Your task to perform on an android device: Clear all items from cart on amazon.com. Add "lg ultragear" to the cart on amazon.com Image 0: 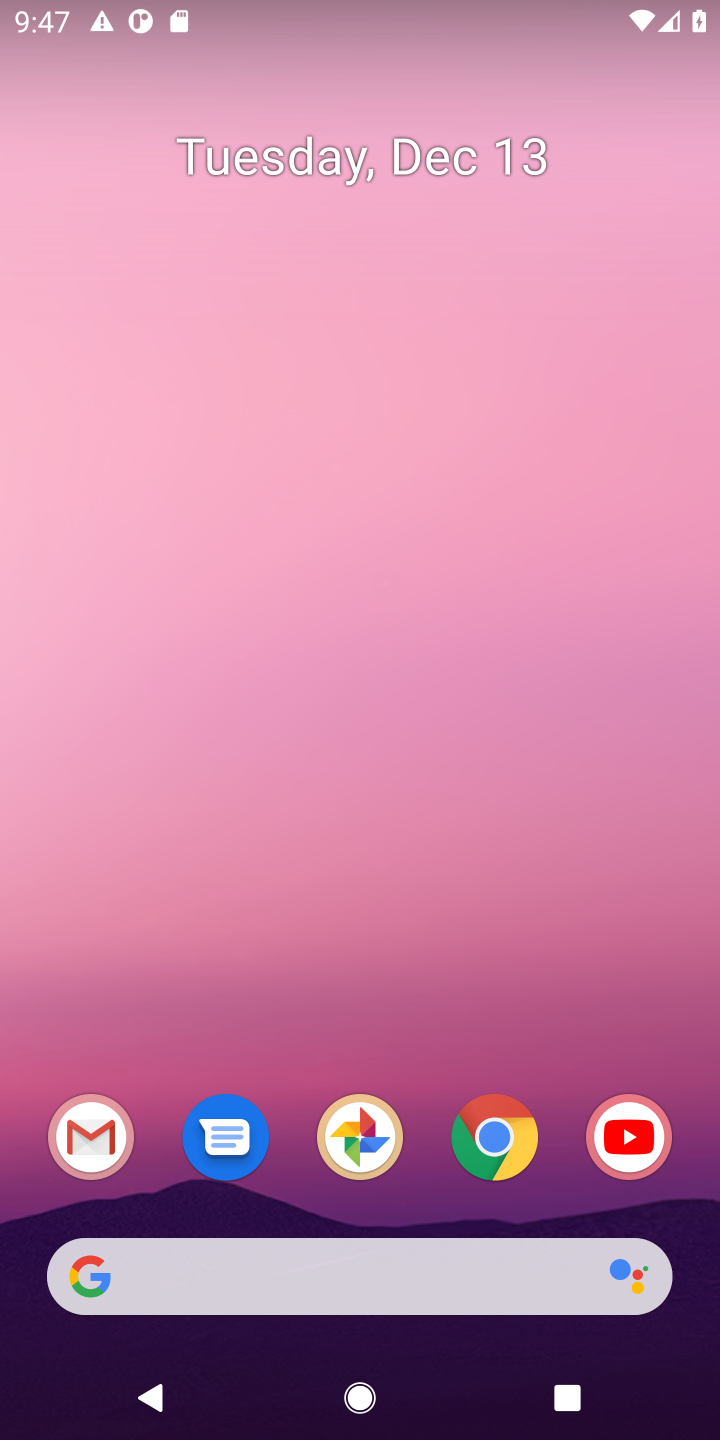
Step 0: click (476, 1156)
Your task to perform on an android device: Clear all items from cart on amazon.com. Add "lg ultragear" to the cart on amazon.com Image 1: 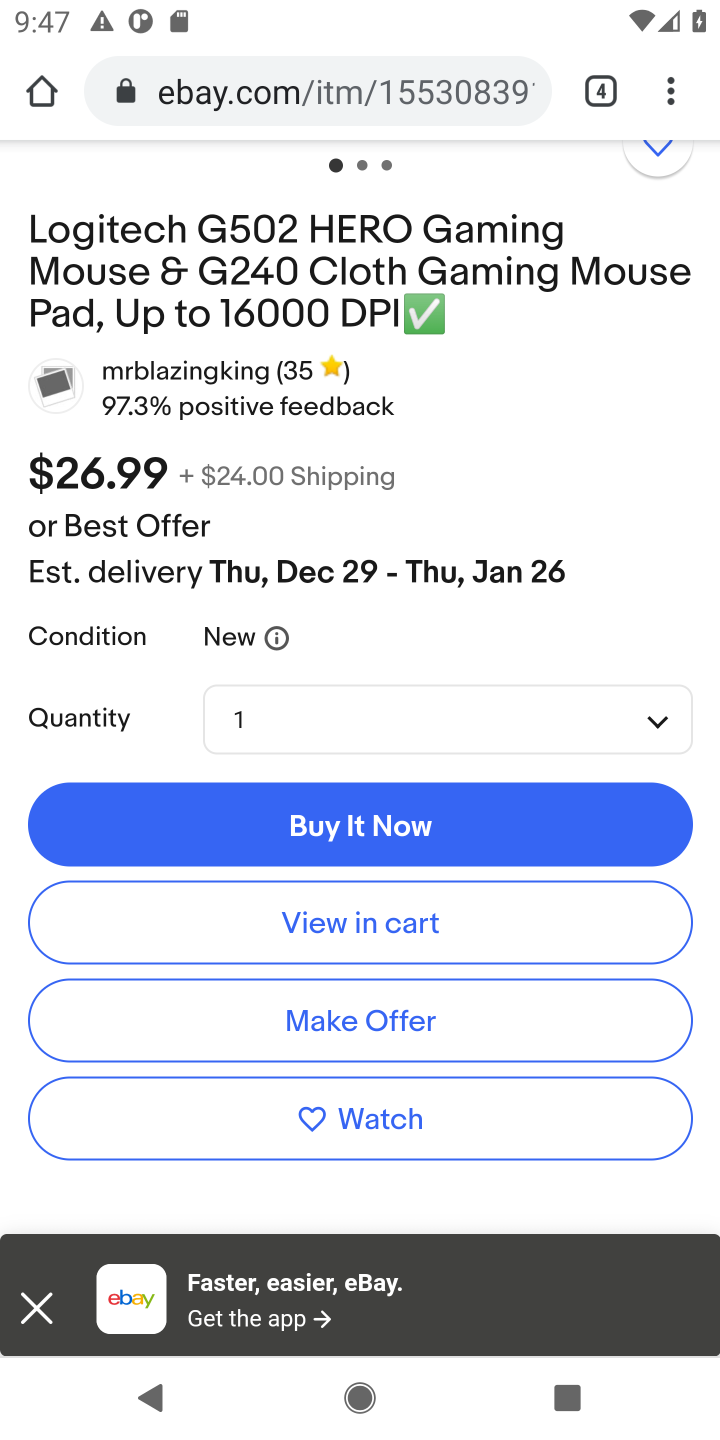
Step 1: click (611, 92)
Your task to perform on an android device: Clear all items from cart on amazon.com. Add "lg ultragear" to the cart on amazon.com Image 2: 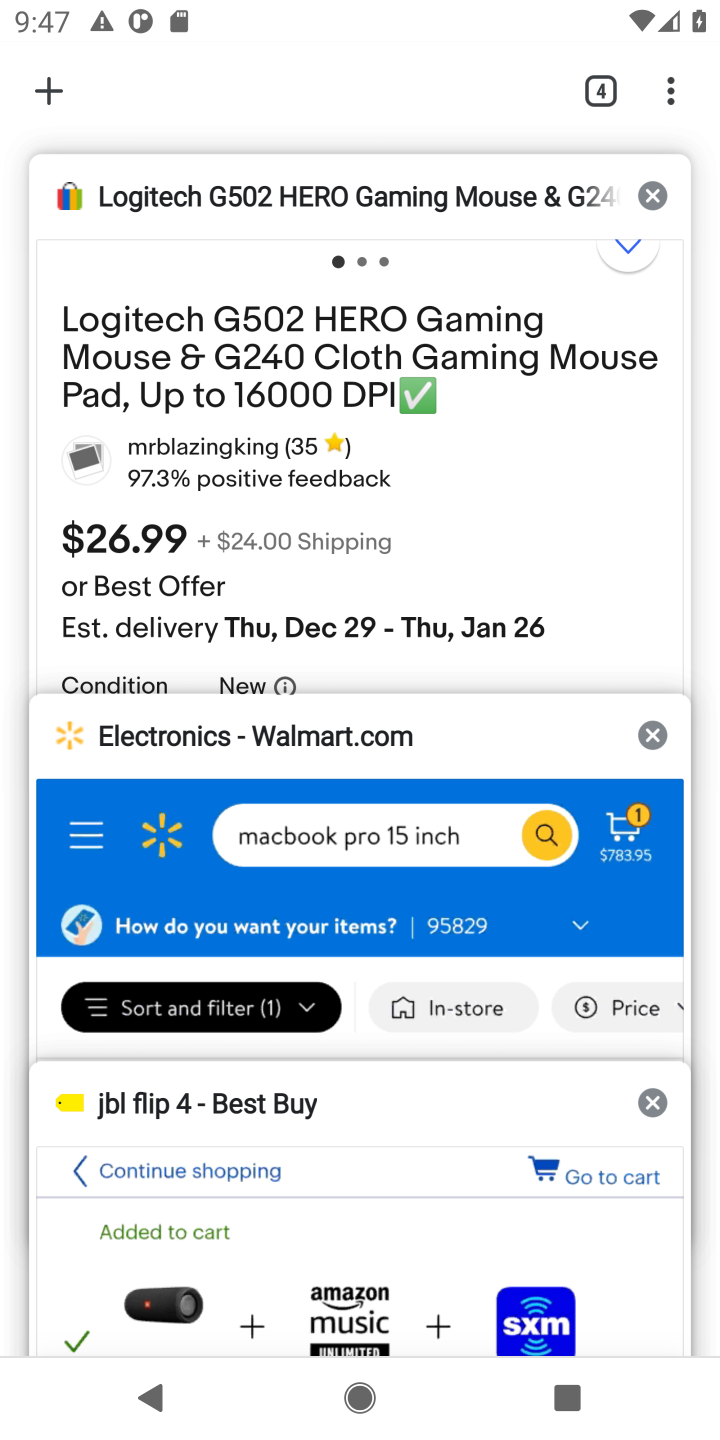
Step 2: click (40, 94)
Your task to perform on an android device: Clear all items from cart on amazon.com. Add "lg ultragear" to the cart on amazon.com Image 3: 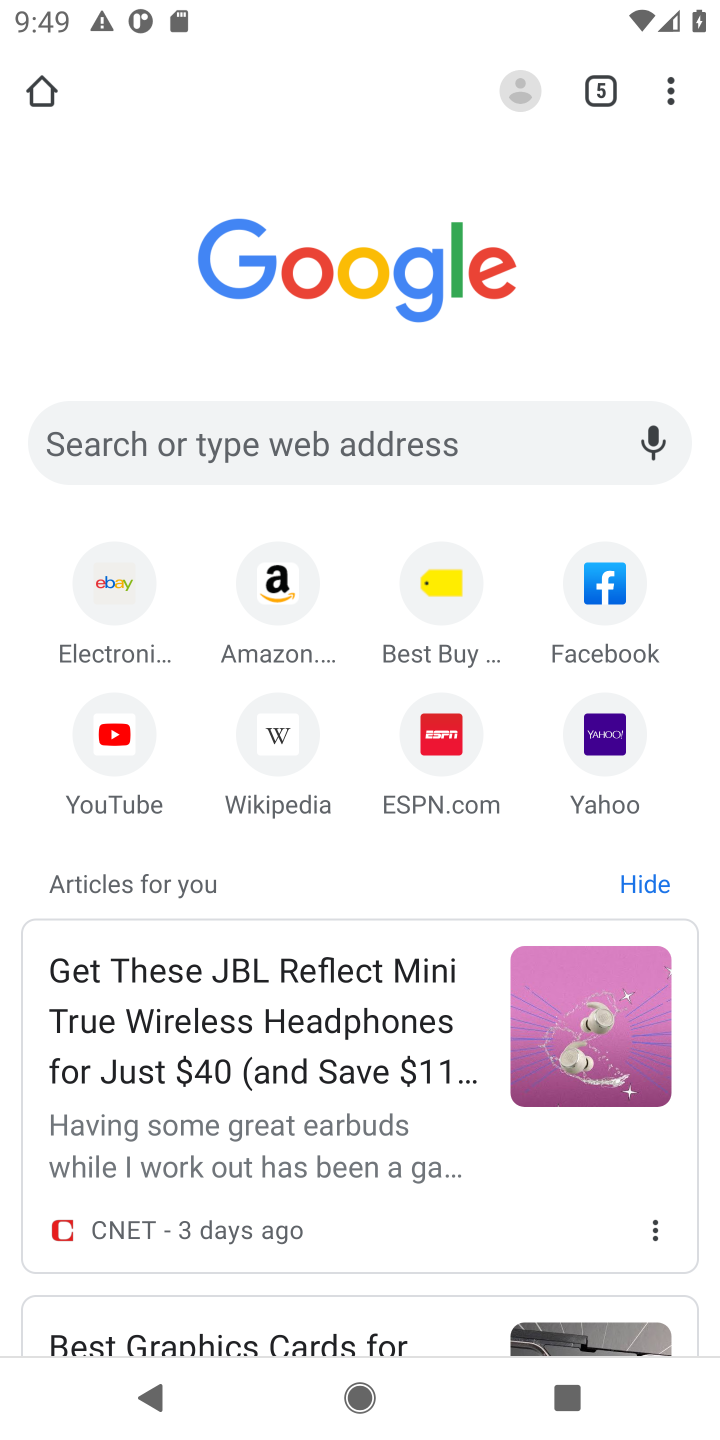
Step 3: click (607, 89)
Your task to perform on an android device: Clear all items from cart on amazon.com. Add "lg ultragear" to the cart on amazon.com Image 4: 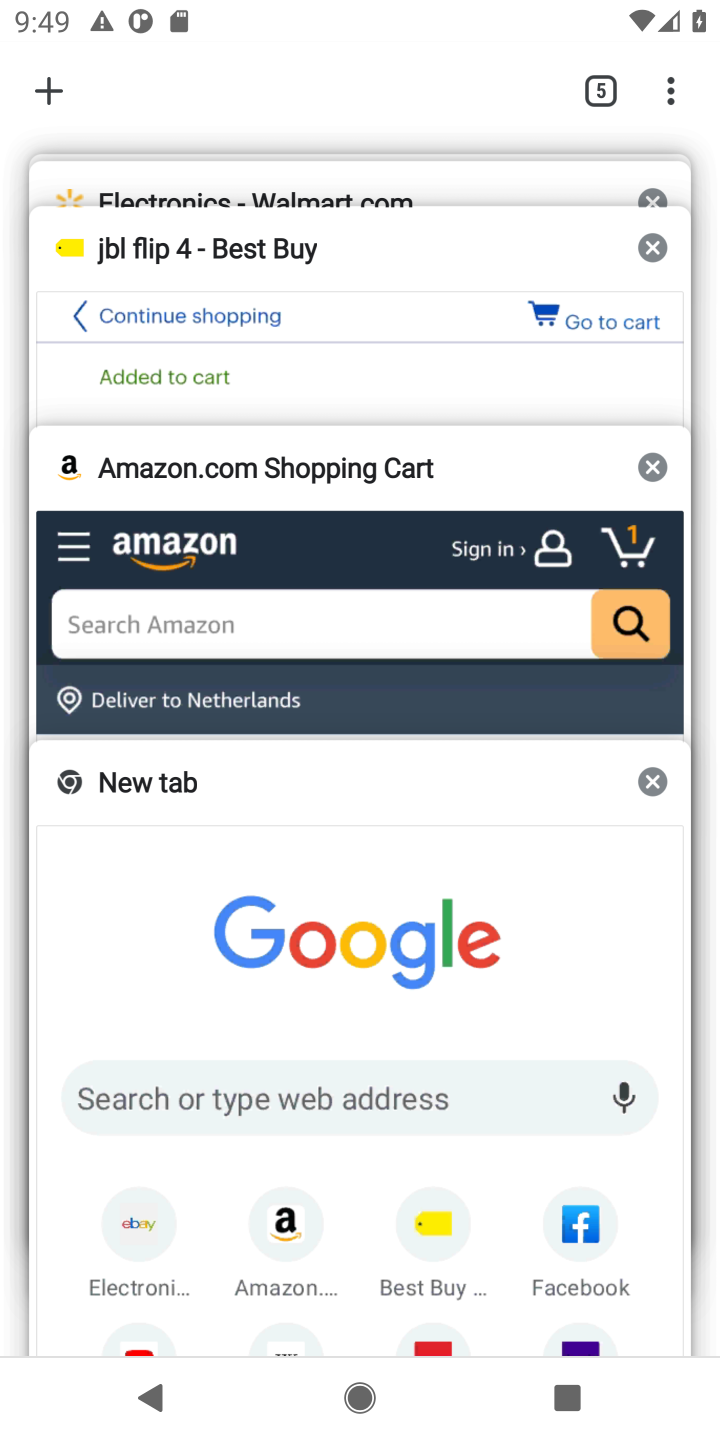
Step 4: click (306, 591)
Your task to perform on an android device: Clear all items from cart on amazon.com. Add "lg ultragear" to the cart on amazon.com Image 5: 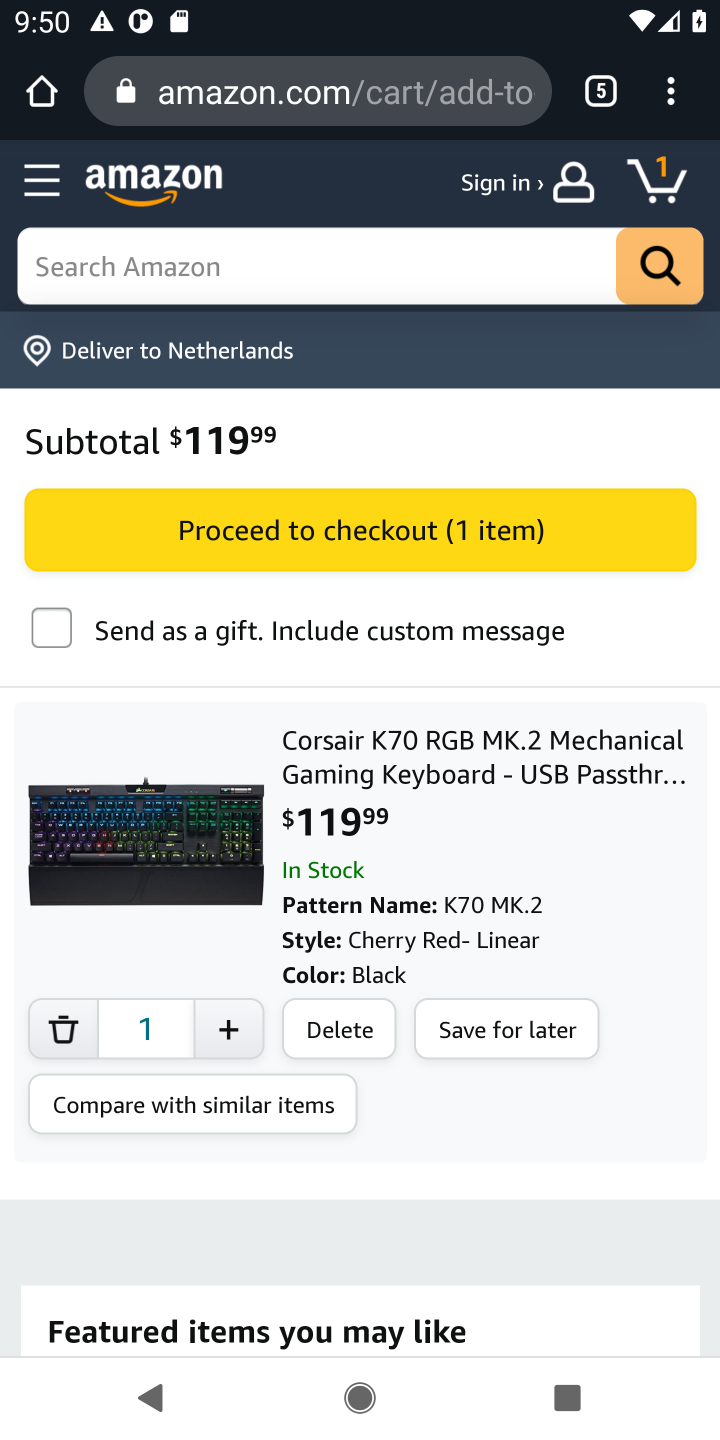
Step 5: click (339, 1032)
Your task to perform on an android device: Clear all items from cart on amazon.com. Add "lg ultragear" to the cart on amazon.com Image 6: 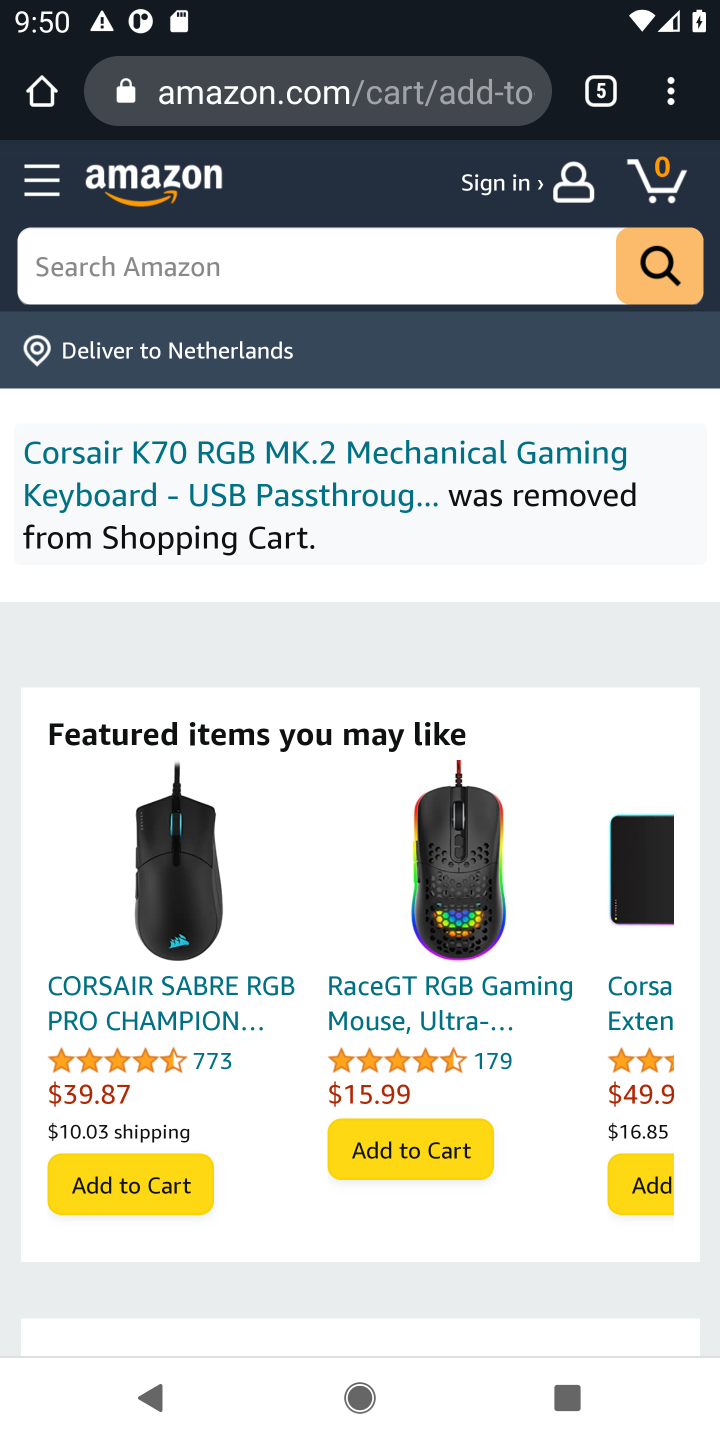
Step 6: click (343, 250)
Your task to perform on an android device: Clear all items from cart on amazon.com. Add "lg ultragear" to the cart on amazon.com Image 7: 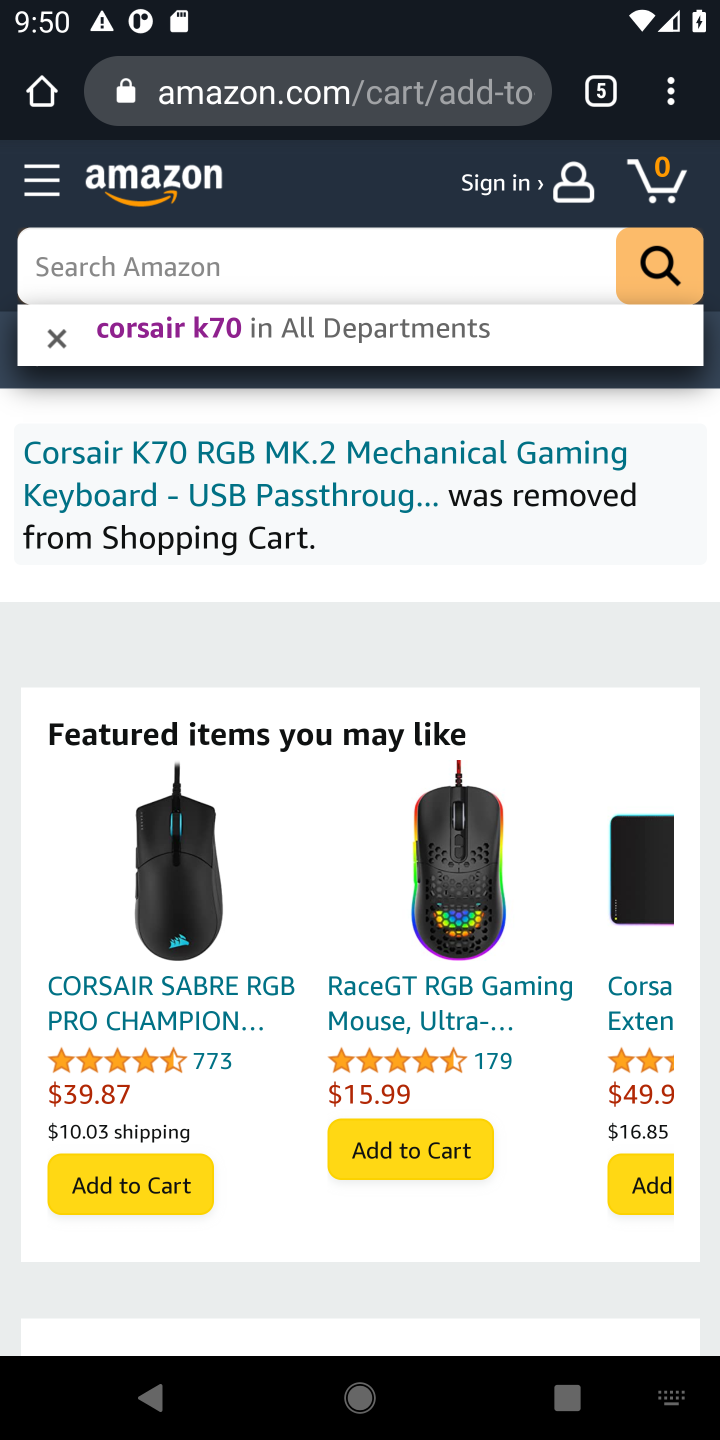
Step 7: type "lg ultragear"
Your task to perform on an android device: Clear all items from cart on amazon.com. Add "lg ultragear" to the cart on amazon.com Image 8: 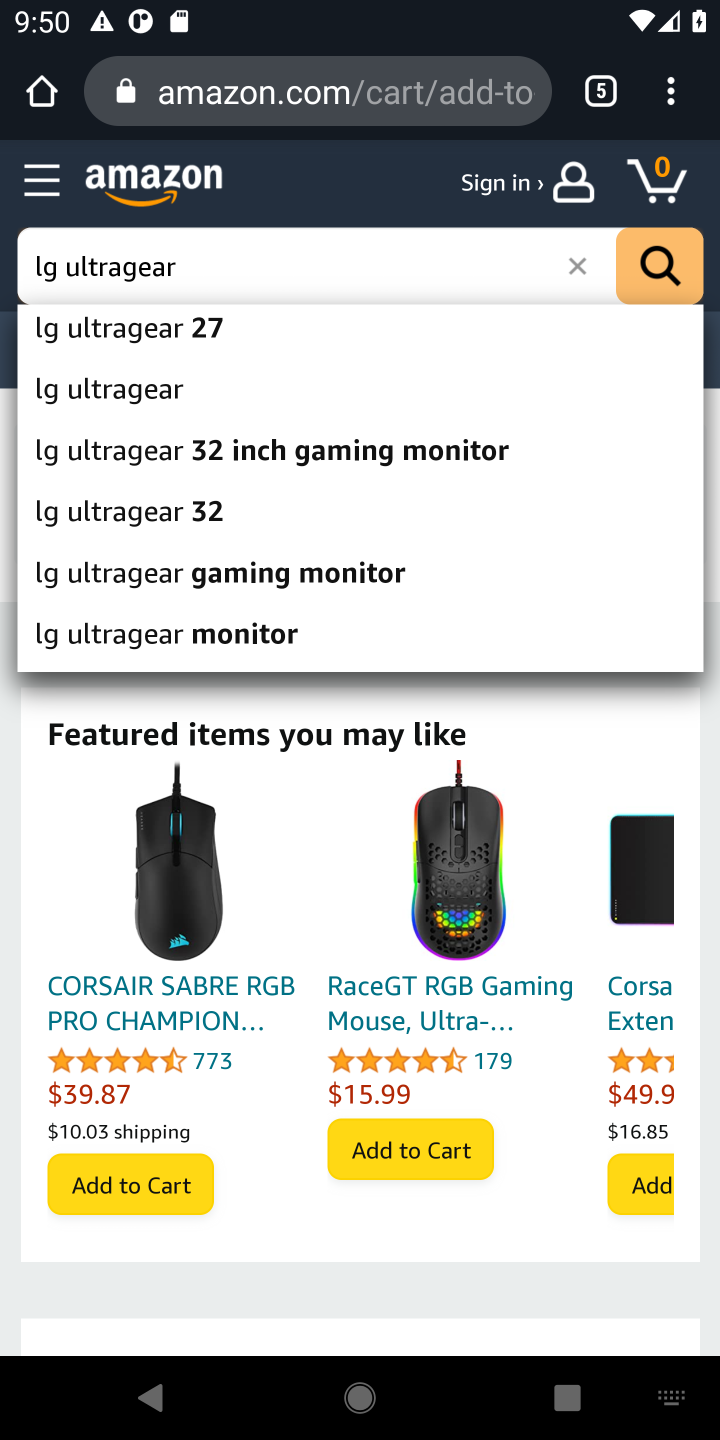
Step 8: click (94, 402)
Your task to perform on an android device: Clear all items from cart on amazon.com. Add "lg ultragear" to the cart on amazon.com Image 9: 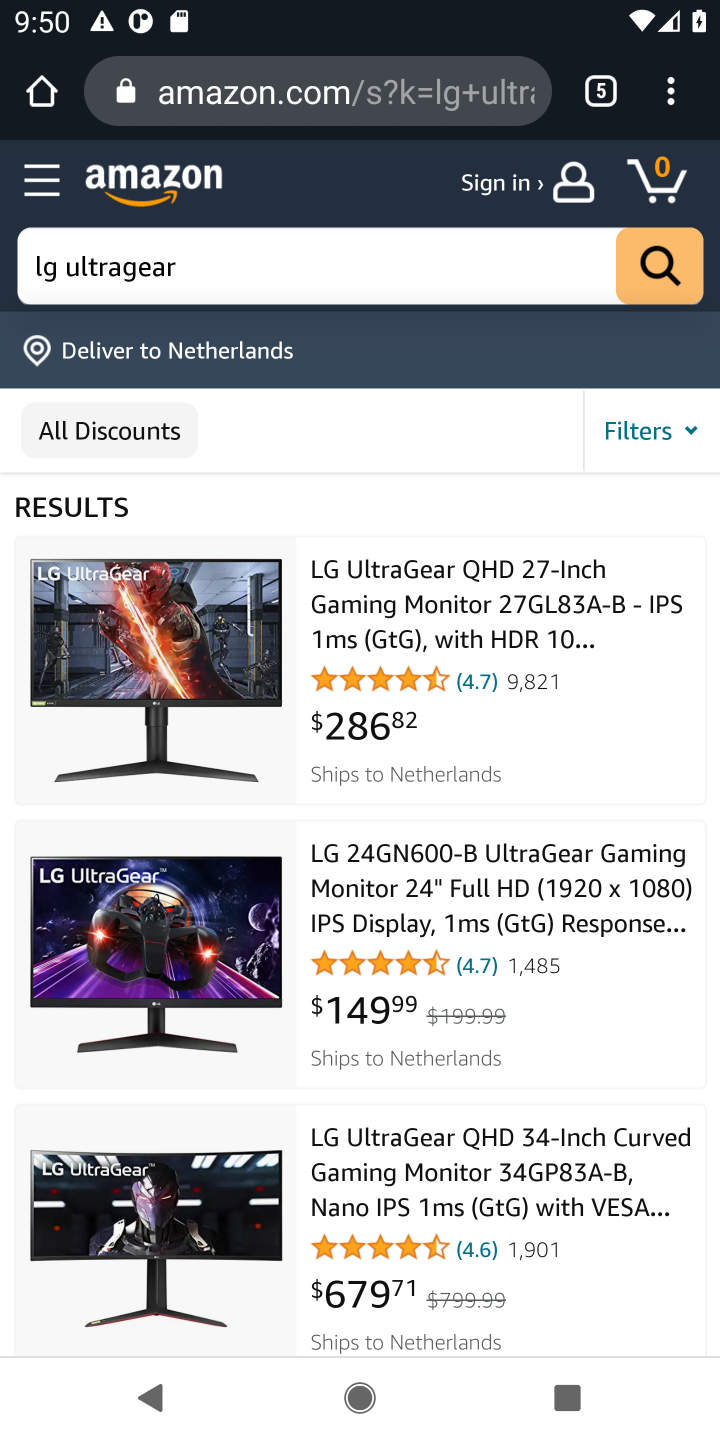
Step 9: click (407, 579)
Your task to perform on an android device: Clear all items from cart on amazon.com. Add "lg ultragear" to the cart on amazon.com Image 10: 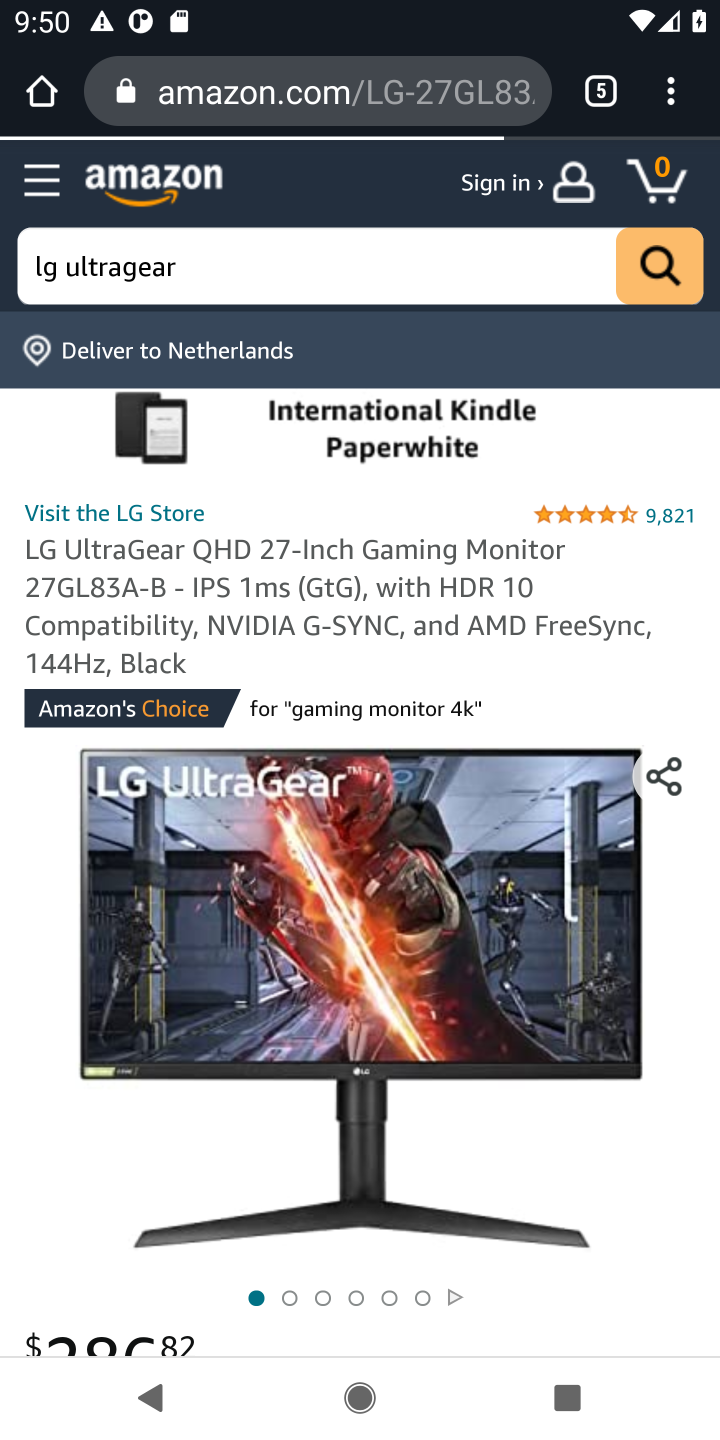
Step 10: drag from (528, 1195) to (567, 525)
Your task to perform on an android device: Clear all items from cart on amazon.com. Add "lg ultragear" to the cart on amazon.com Image 11: 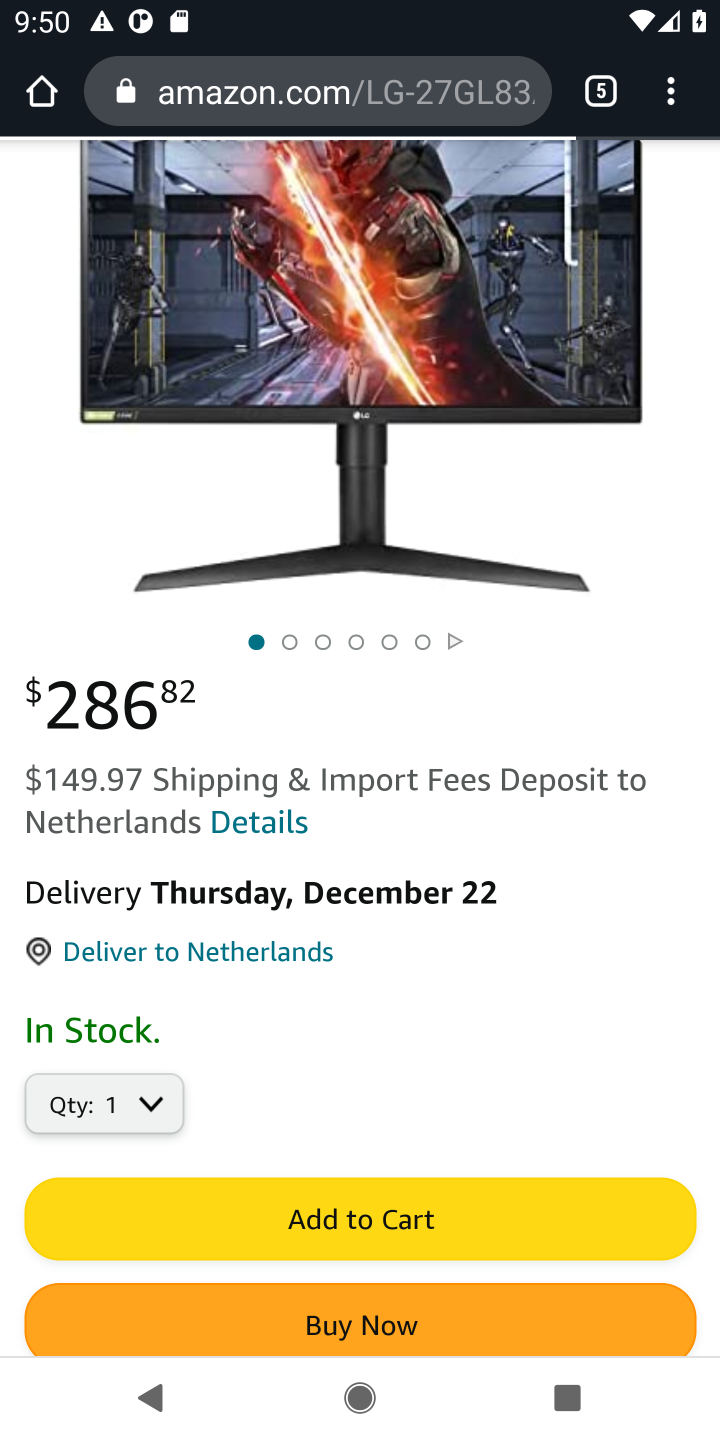
Step 11: click (435, 1221)
Your task to perform on an android device: Clear all items from cart on amazon.com. Add "lg ultragear" to the cart on amazon.com Image 12: 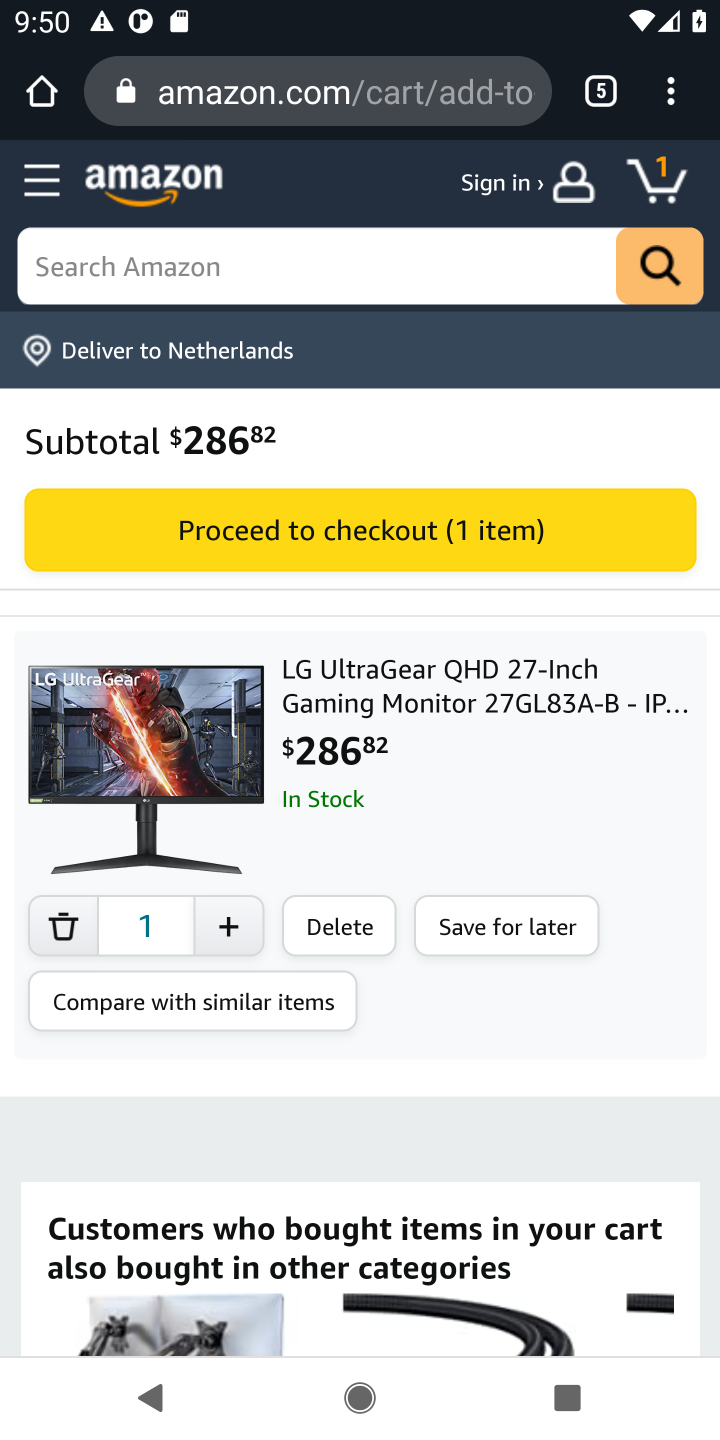
Step 12: task complete